Your task to perform on an android device: Search for sushi restaurants on Maps Image 0: 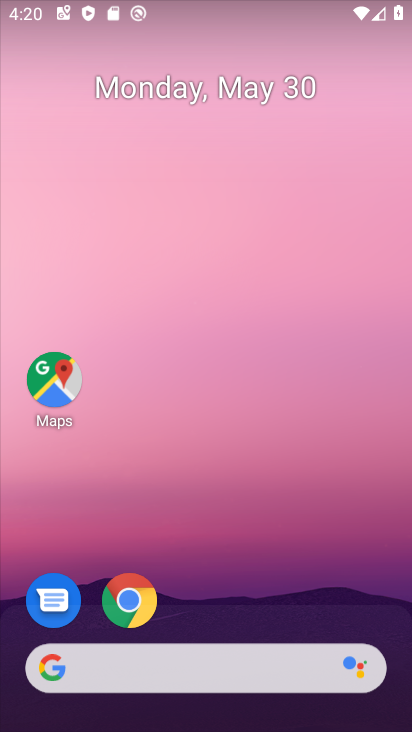
Step 0: press home button
Your task to perform on an android device: Search for sushi restaurants on Maps Image 1: 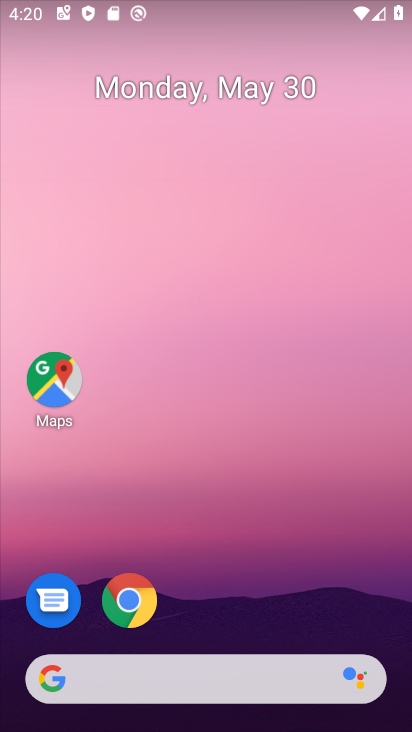
Step 1: click (51, 376)
Your task to perform on an android device: Search for sushi restaurants on Maps Image 2: 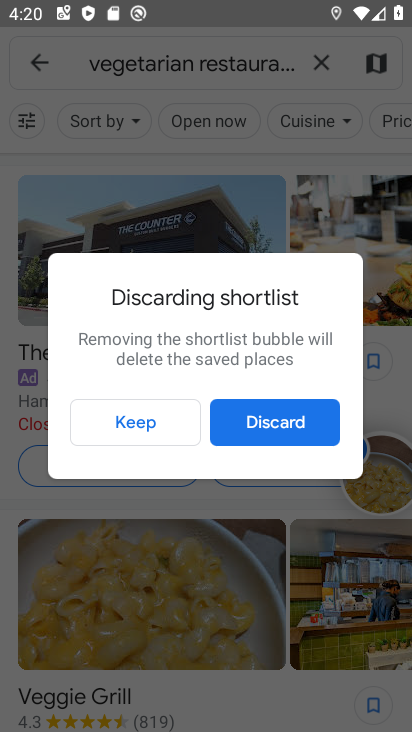
Step 2: click (289, 441)
Your task to perform on an android device: Search for sushi restaurants on Maps Image 3: 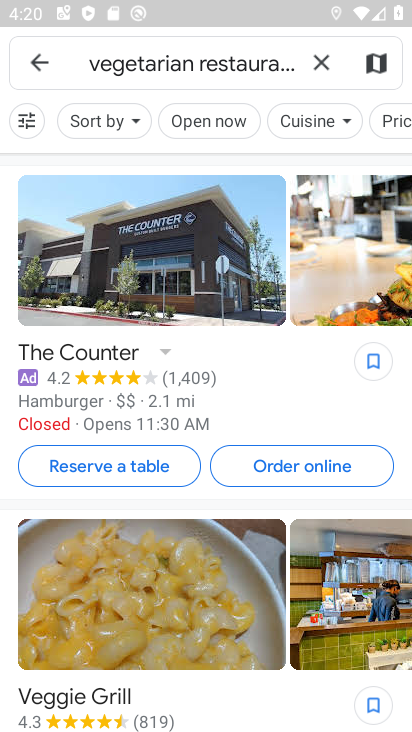
Step 3: click (317, 68)
Your task to perform on an android device: Search for sushi restaurants on Maps Image 4: 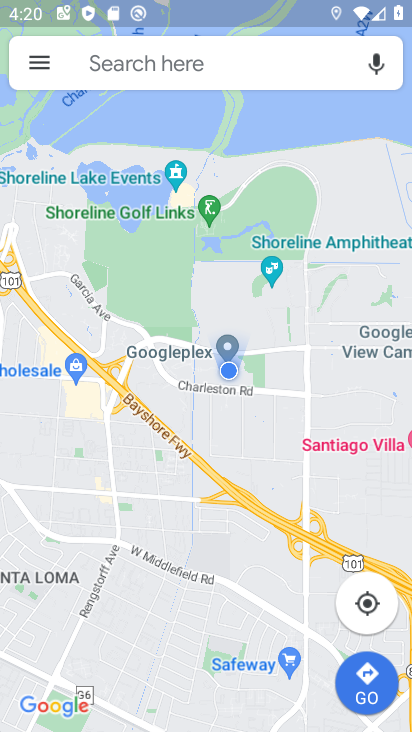
Step 4: click (131, 59)
Your task to perform on an android device: Search for sushi restaurants on Maps Image 5: 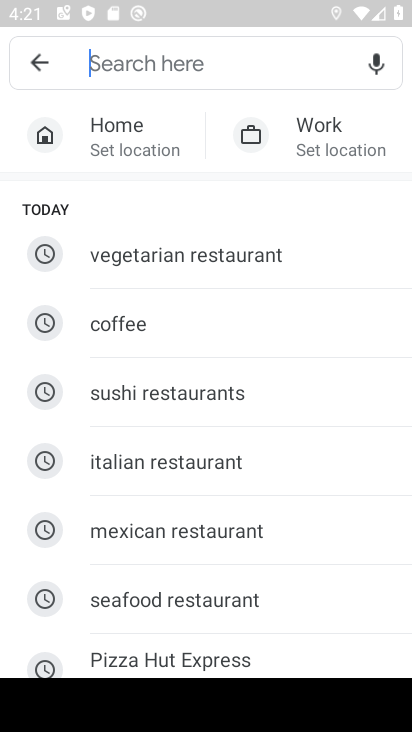
Step 5: click (151, 388)
Your task to perform on an android device: Search for sushi restaurants on Maps Image 6: 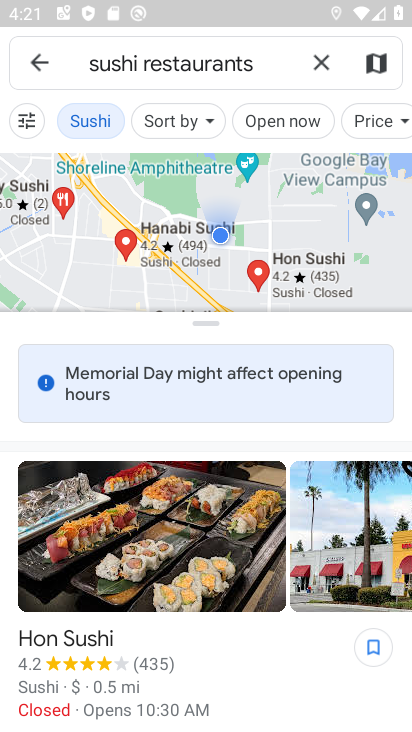
Step 6: task complete